Your task to perform on an android device: Show the shopping cart on newegg. Image 0: 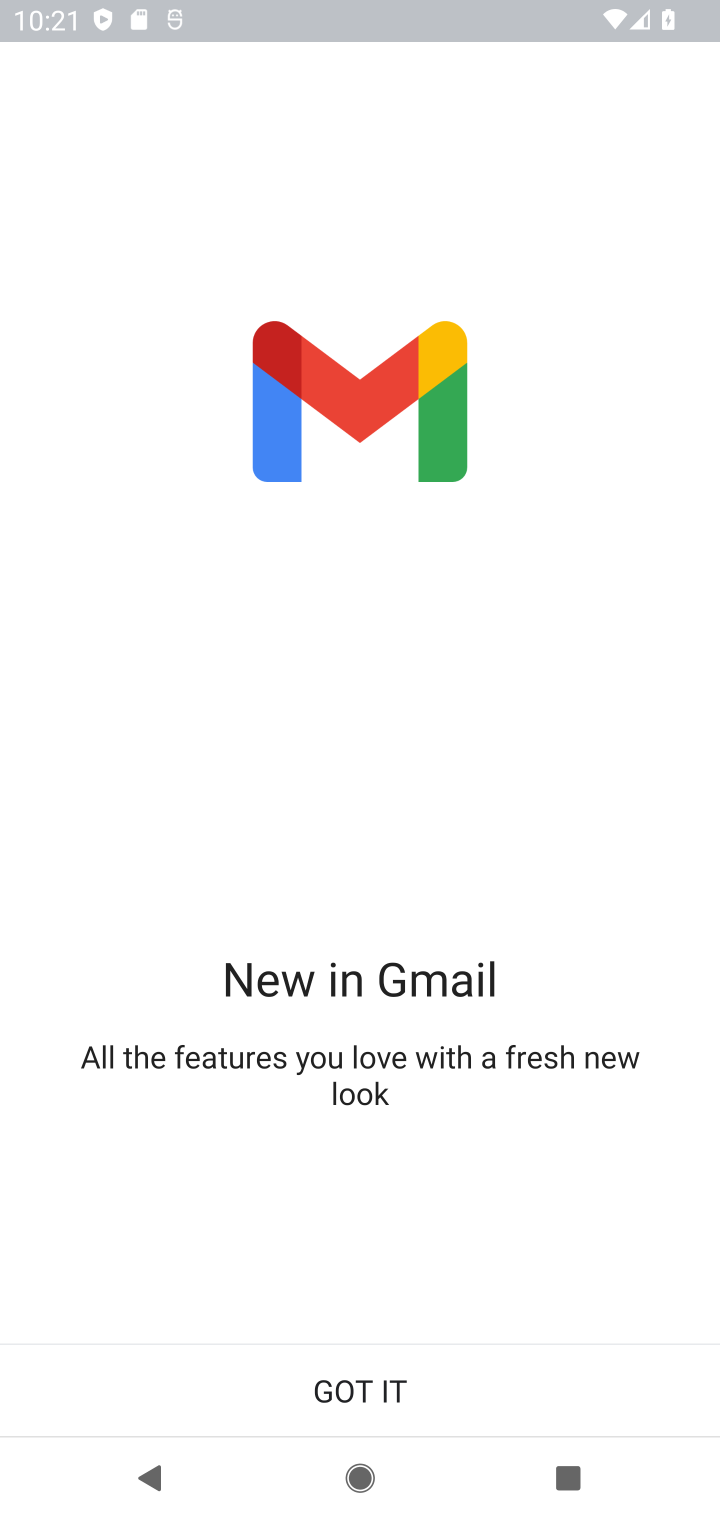
Step 0: press home button
Your task to perform on an android device: Show the shopping cart on newegg. Image 1: 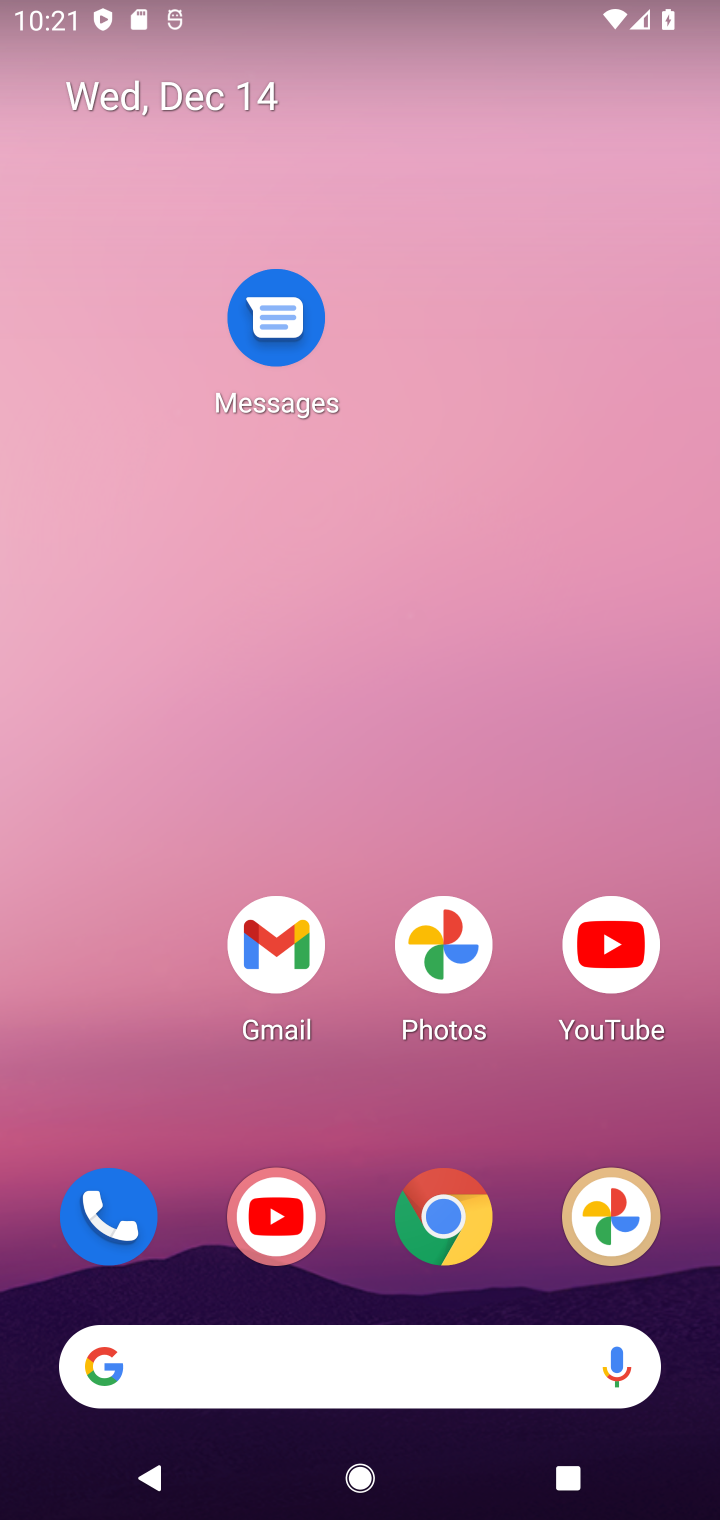
Step 1: drag from (360, 1280) to (360, 90)
Your task to perform on an android device: Show the shopping cart on newegg. Image 2: 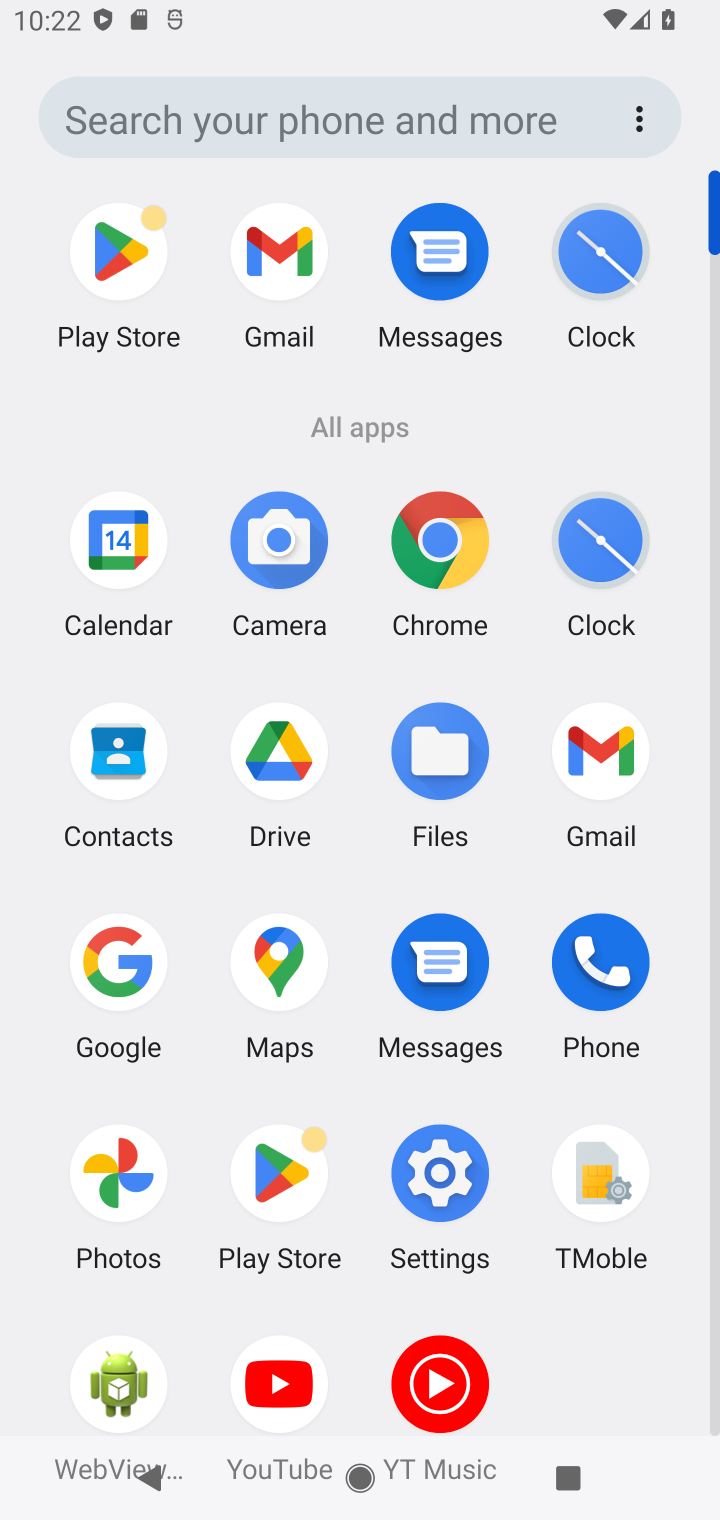
Step 2: click (115, 970)
Your task to perform on an android device: Show the shopping cart on newegg. Image 3: 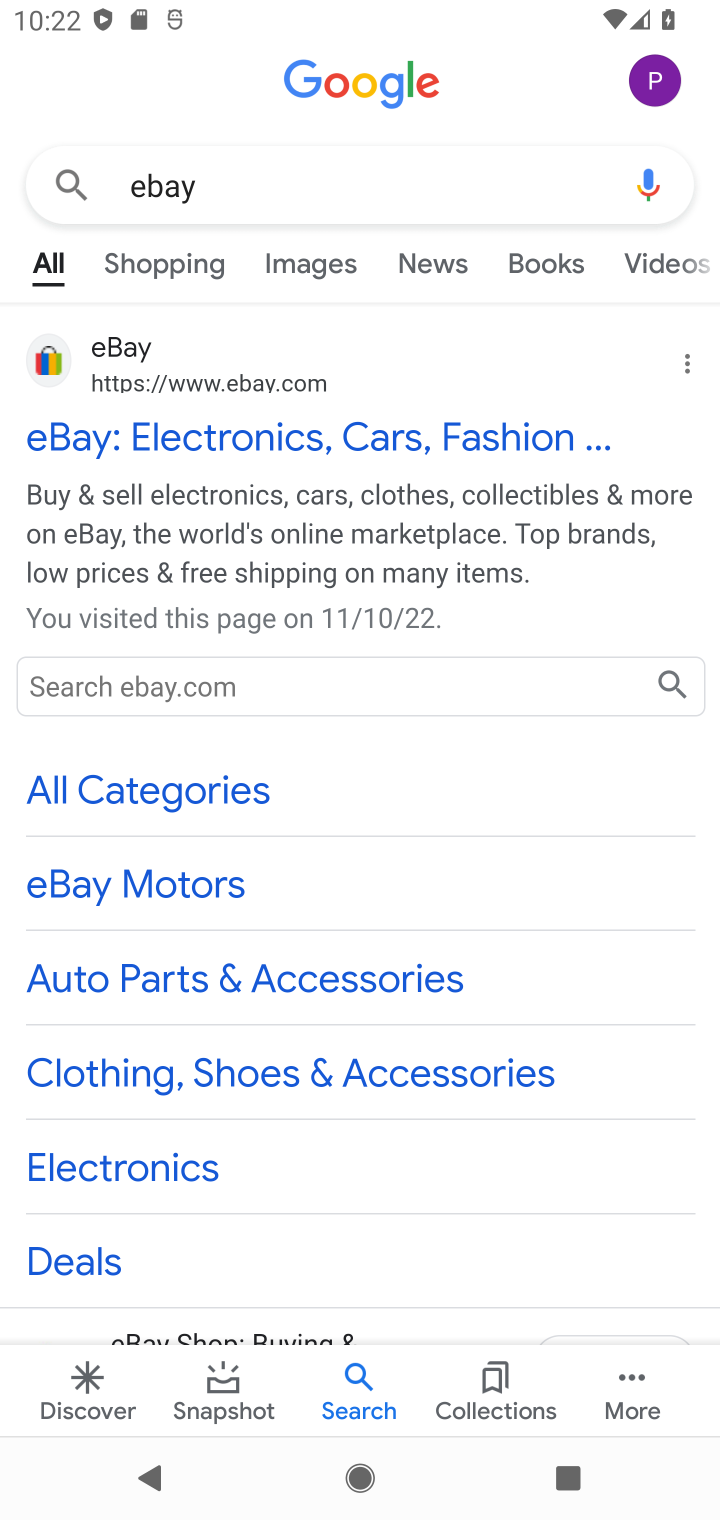
Step 3: click (213, 178)
Your task to perform on an android device: Show the shopping cart on newegg. Image 4: 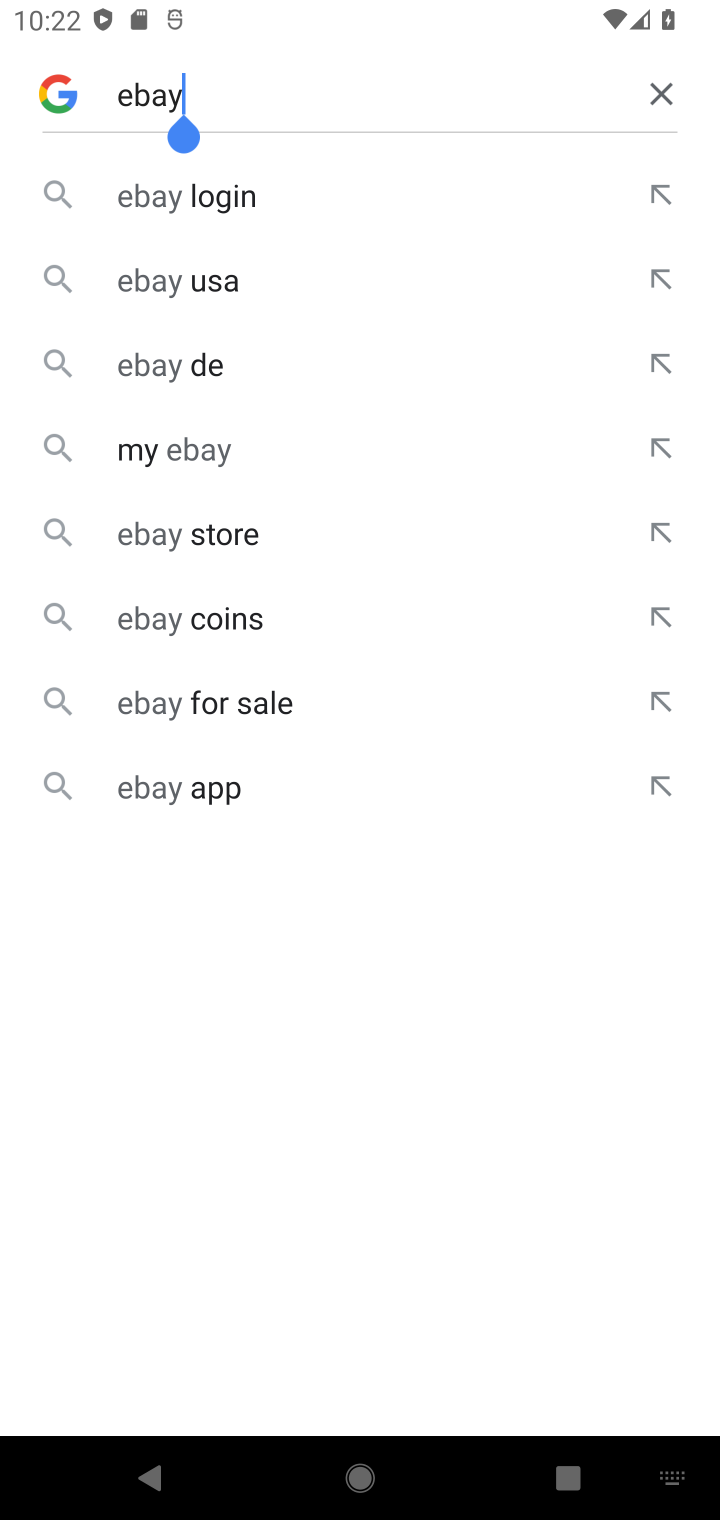
Step 4: click (664, 84)
Your task to perform on an android device: Show the shopping cart on newegg. Image 5: 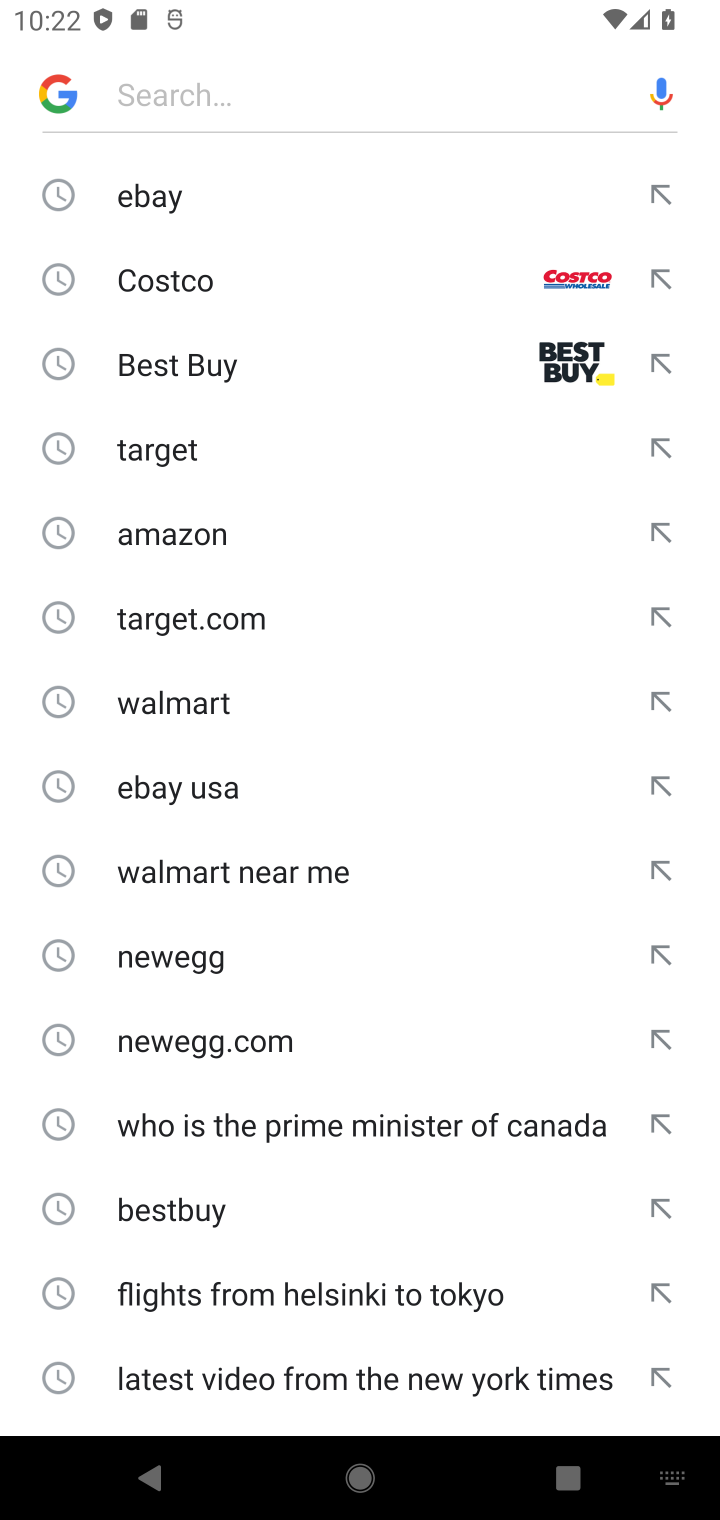
Step 5: click (170, 955)
Your task to perform on an android device: Show the shopping cart on newegg. Image 6: 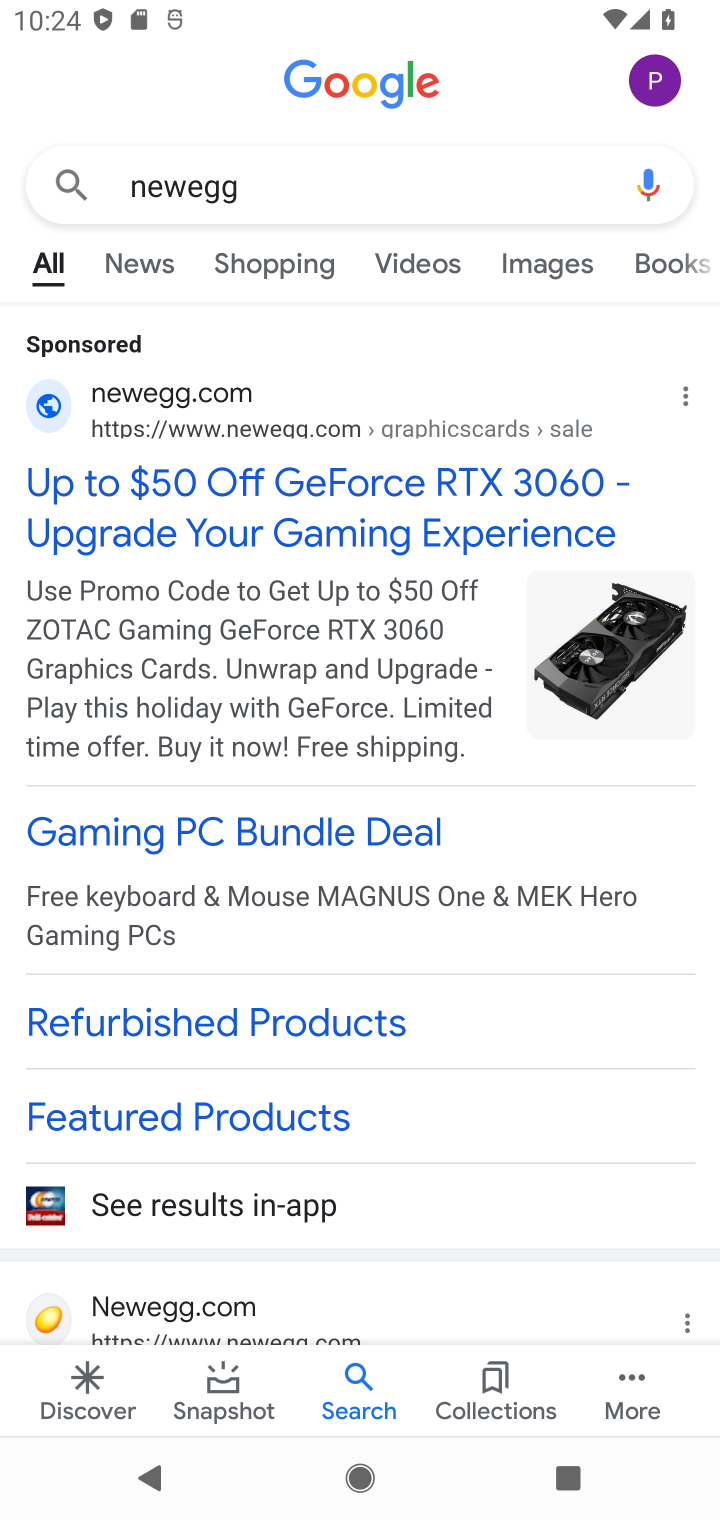
Step 6: drag from (262, 1007) to (176, 334)
Your task to perform on an android device: Show the shopping cart on newegg. Image 7: 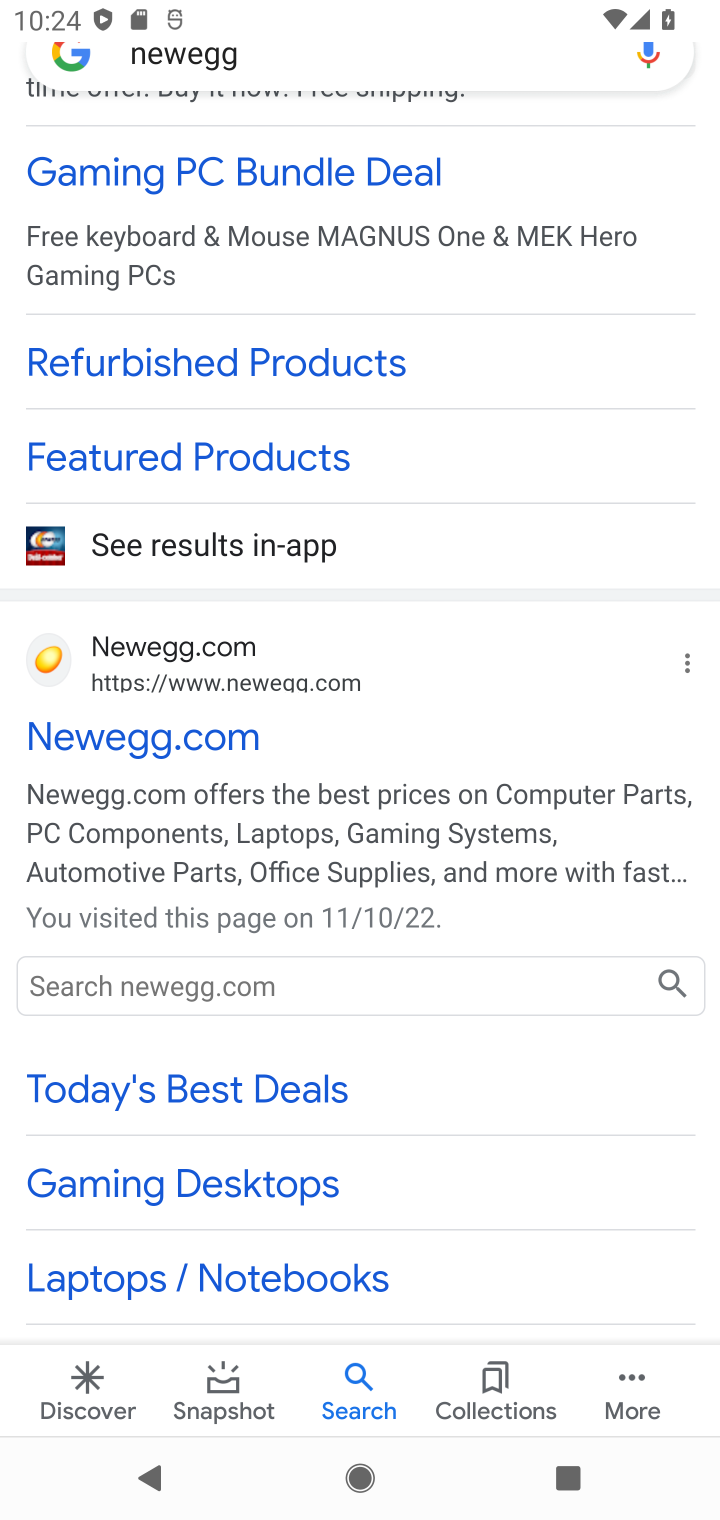
Step 7: click (130, 738)
Your task to perform on an android device: Show the shopping cart on newegg. Image 8: 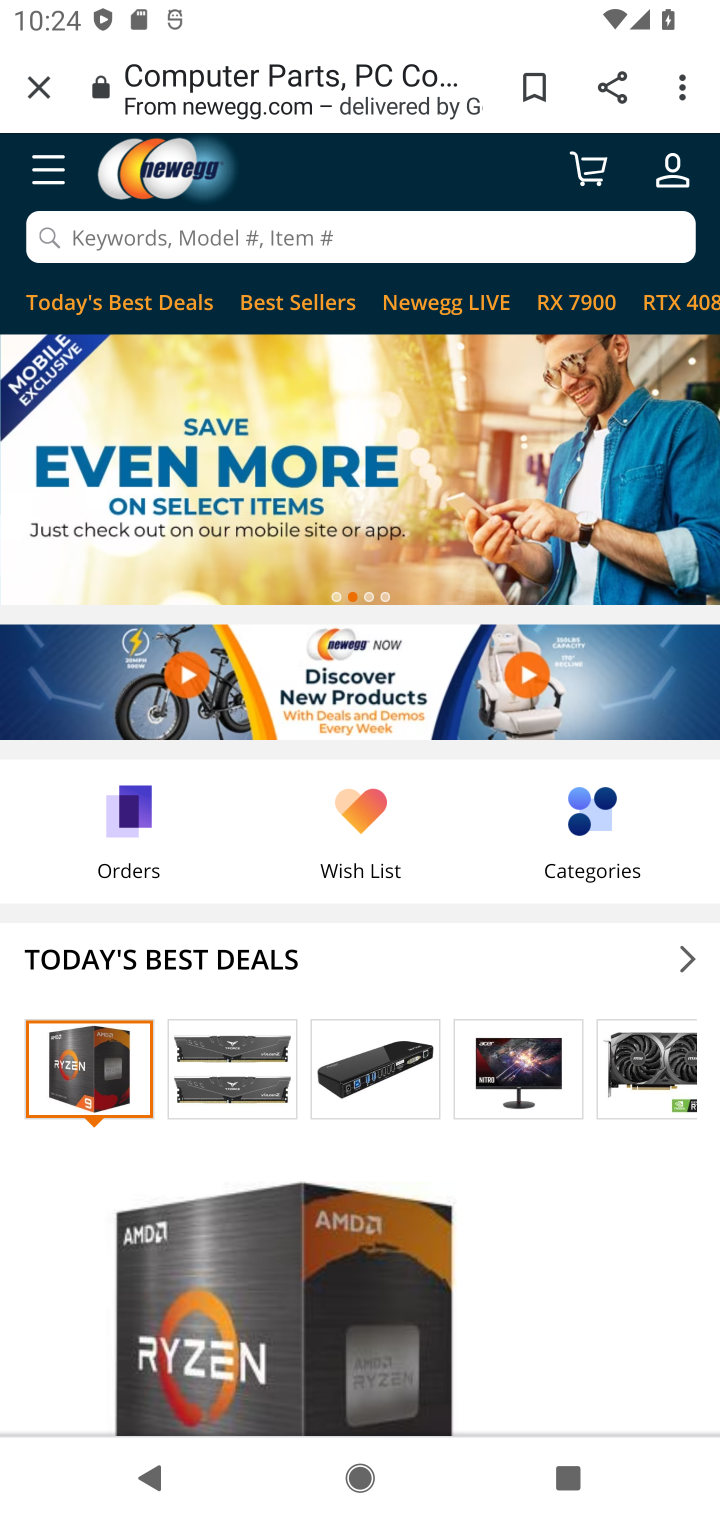
Step 8: click (597, 172)
Your task to perform on an android device: Show the shopping cart on newegg. Image 9: 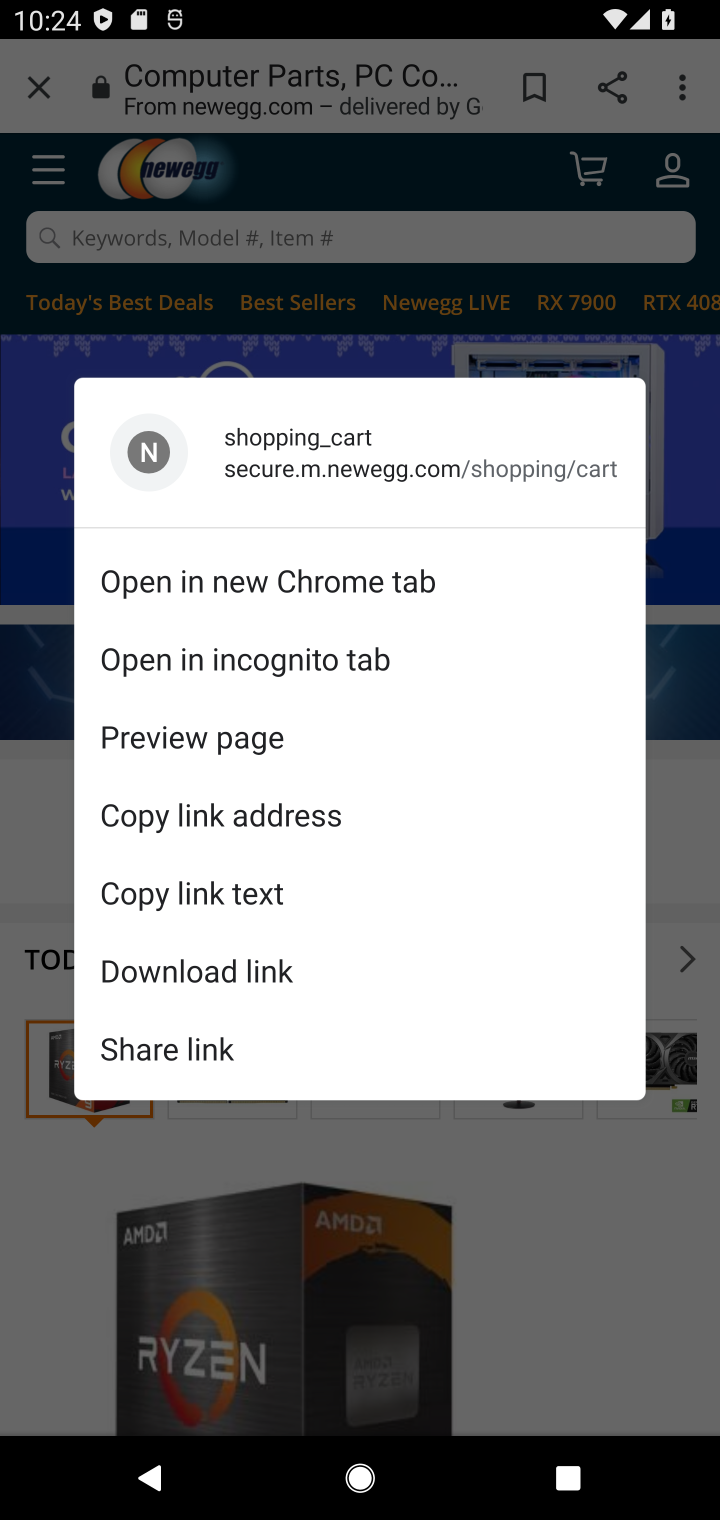
Step 9: task complete